Your task to perform on an android device: change the clock display to analog Image 0: 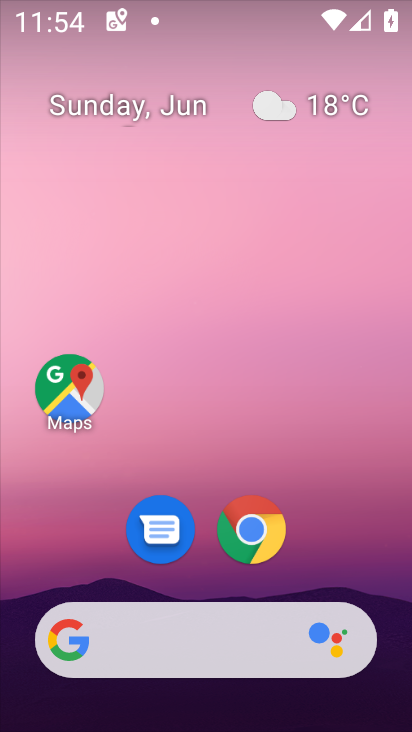
Step 0: drag from (367, 509) to (389, 3)
Your task to perform on an android device: change the clock display to analog Image 1: 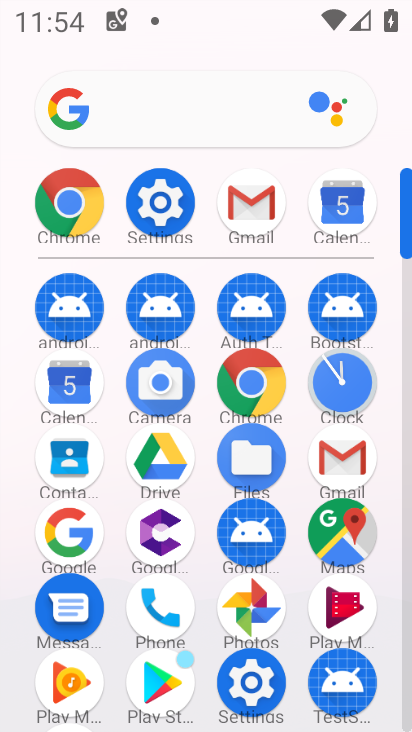
Step 1: click (344, 372)
Your task to perform on an android device: change the clock display to analog Image 2: 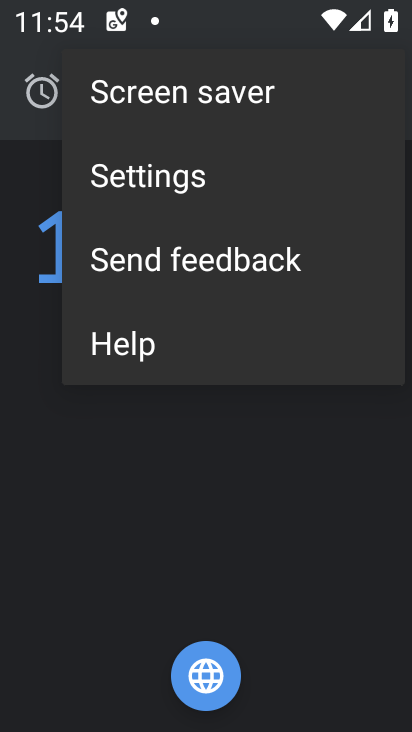
Step 2: click (315, 480)
Your task to perform on an android device: change the clock display to analog Image 3: 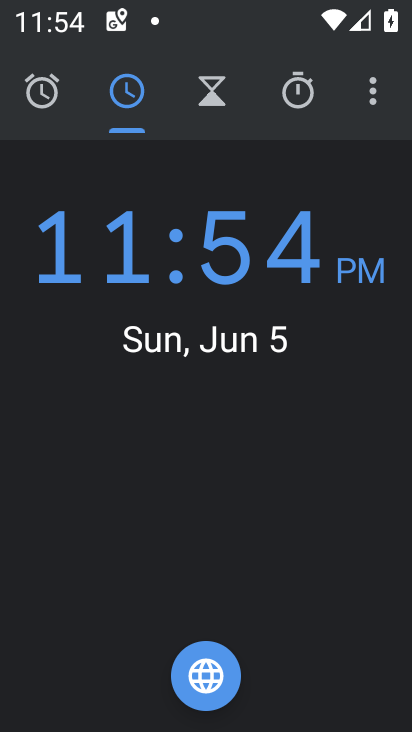
Step 3: click (350, 92)
Your task to perform on an android device: change the clock display to analog Image 4: 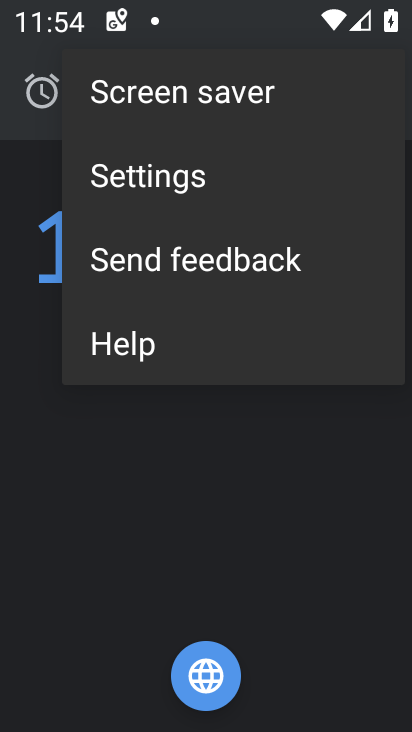
Step 4: click (142, 177)
Your task to perform on an android device: change the clock display to analog Image 5: 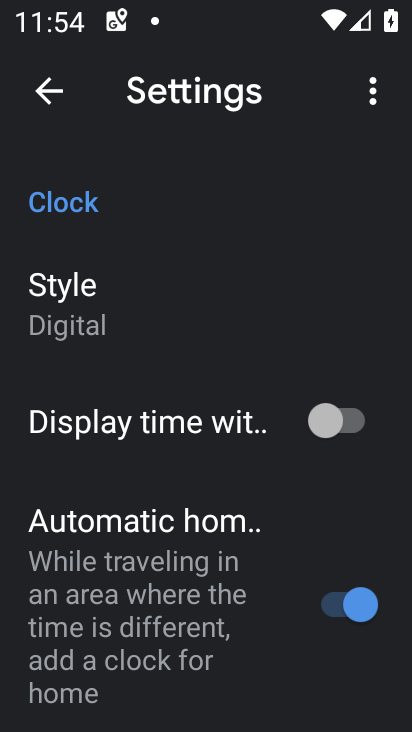
Step 5: click (88, 317)
Your task to perform on an android device: change the clock display to analog Image 6: 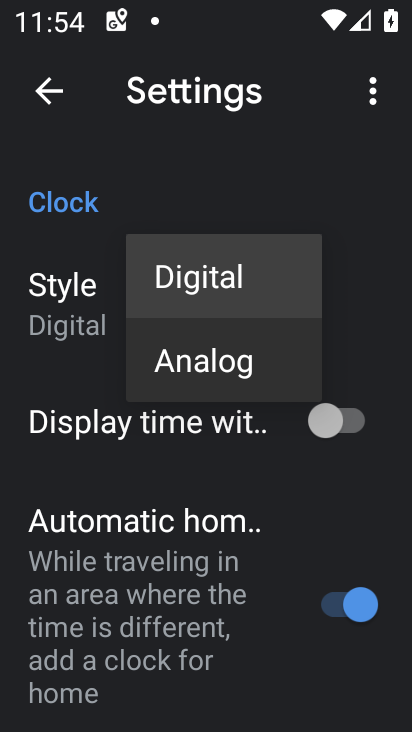
Step 6: click (193, 378)
Your task to perform on an android device: change the clock display to analog Image 7: 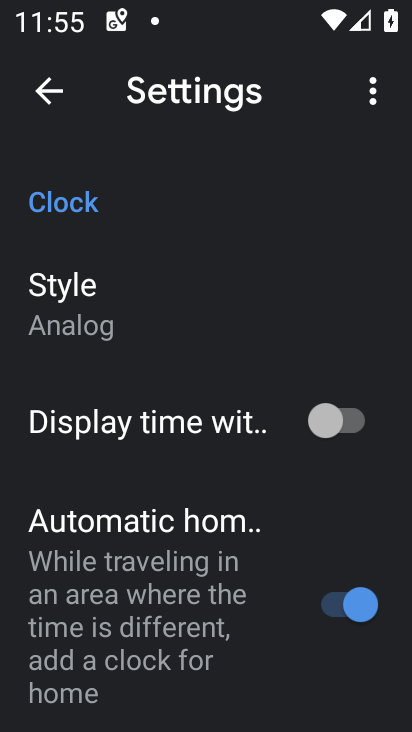
Step 7: task complete